Your task to perform on an android device: turn off wifi Image 0: 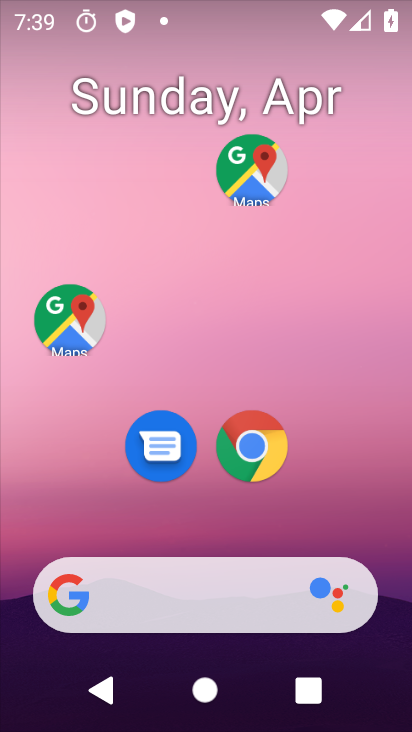
Step 0: drag from (218, 401) to (392, 436)
Your task to perform on an android device: turn off wifi Image 1: 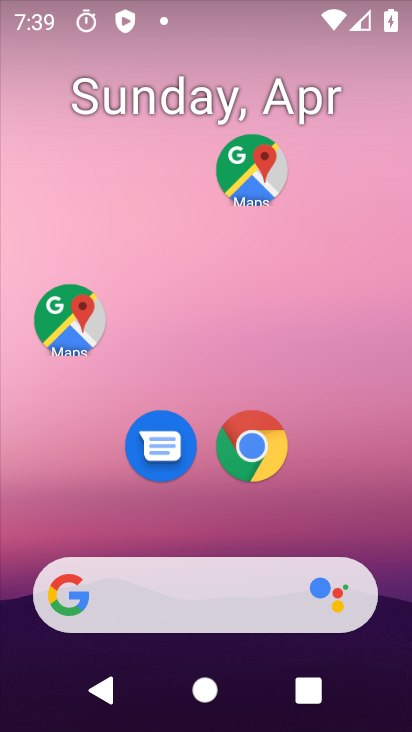
Step 1: drag from (195, 559) to (410, 30)
Your task to perform on an android device: turn off wifi Image 2: 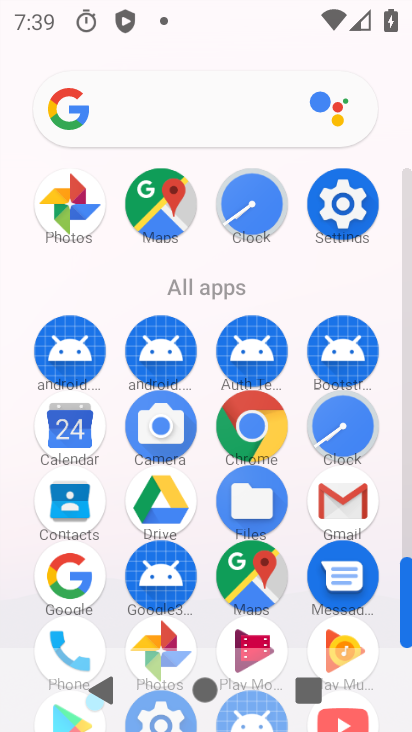
Step 2: click (365, 189)
Your task to perform on an android device: turn off wifi Image 3: 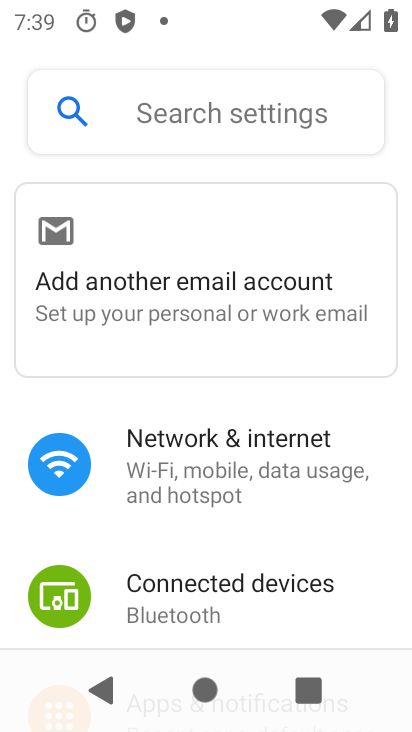
Step 3: click (156, 474)
Your task to perform on an android device: turn off wifi Image 4: 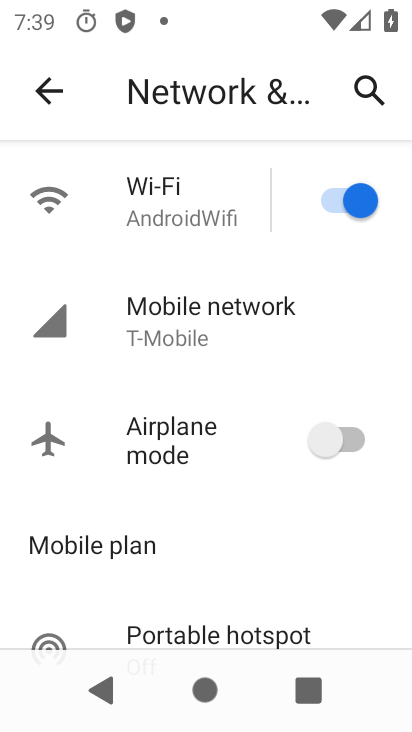
Step 4: click (161, 175)
Your task to perform on an android device: turn off wifi Image 5: 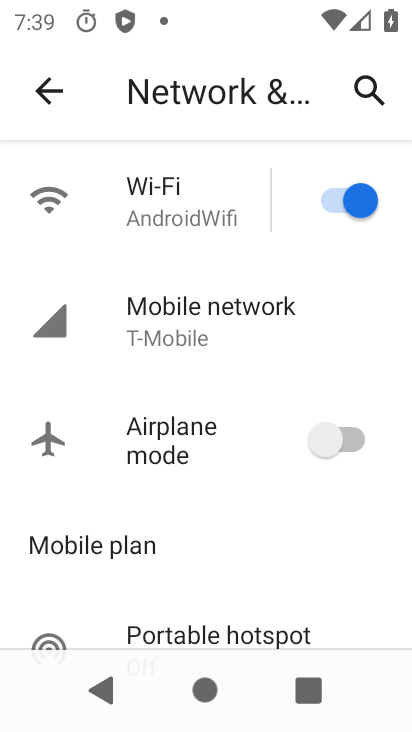
Step 5: click (317, 205)
Your task to perform on an android device: turn off wifi Image 6: 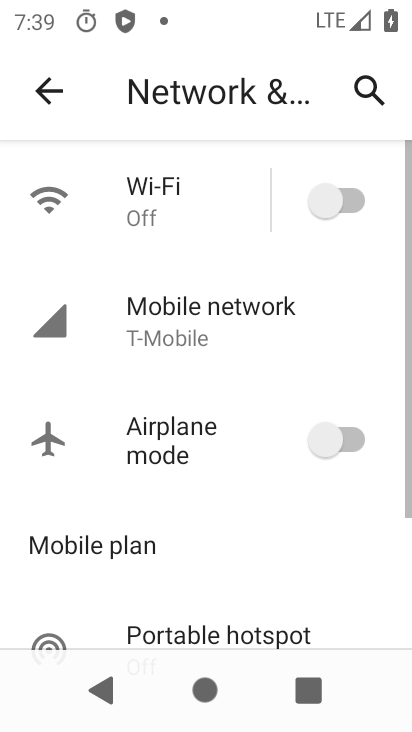
Step 6: task complete